Your task to perform on an android device: Go to Maps Image 0: 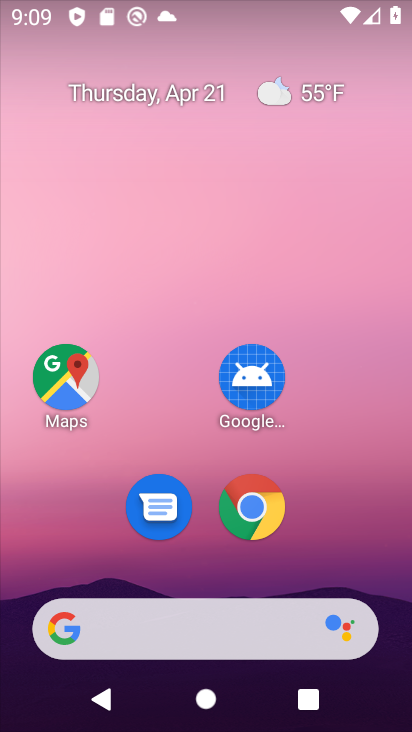
Step 0: click (60, 370)
Your task to perform on an android device: Go to Maps Image 1: 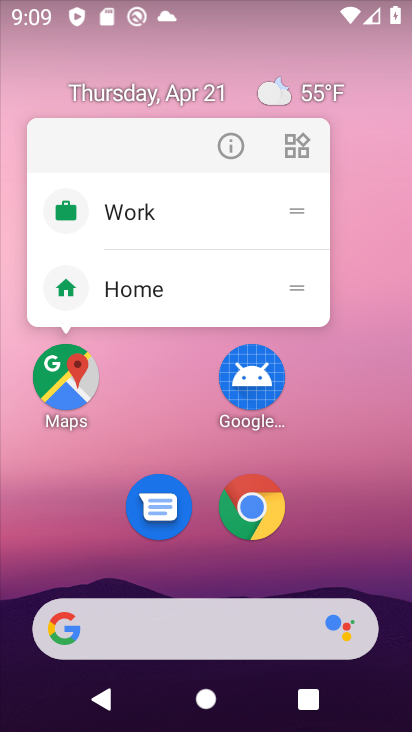
Step 1: click (67, 379)
Your task to perform on an android device: Go to Maps Image 2: 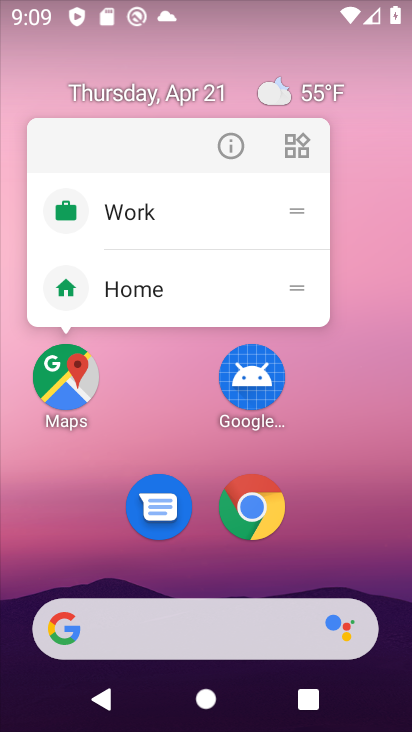
Step 2: click (67, 380)
Your task to perform on an android device: Go to Maps Image 3: 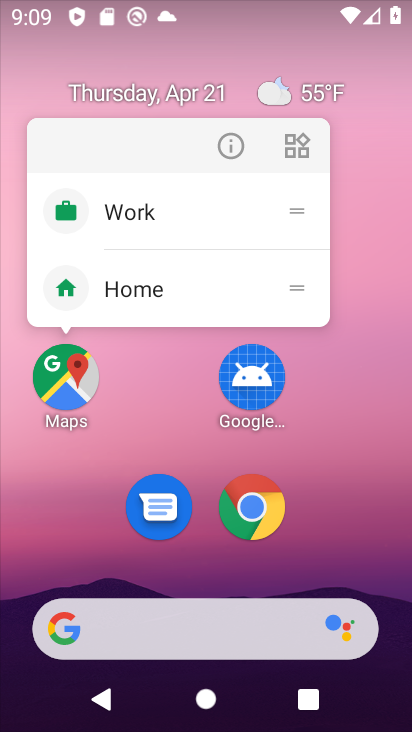
Step 3: click (67, 380)
Your task to perform on an android device: Go to Maps Image 4: 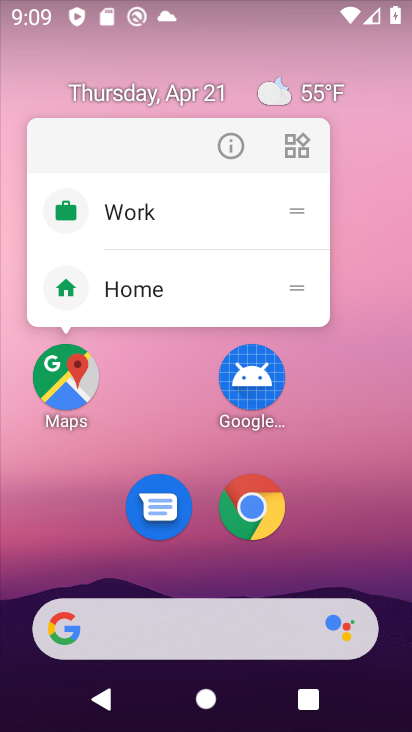
Step 4: click (312, 457)
Your task to perform on an android device: Go to Maps Image 5: 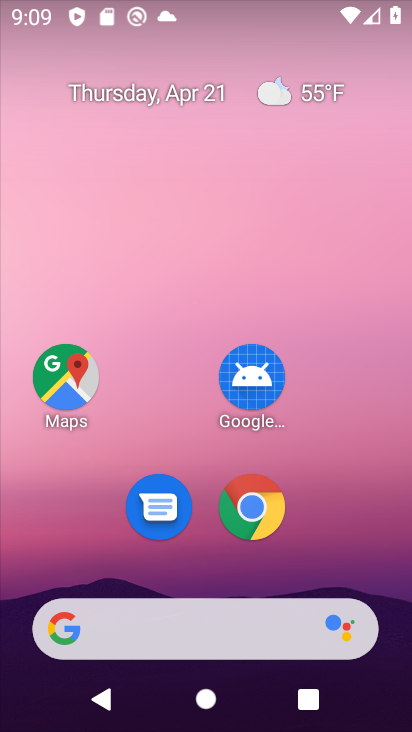
Step 5: drag from (218, 587) to (267, 277)
Your task to perform on an android device: Go to Maps Image 6: 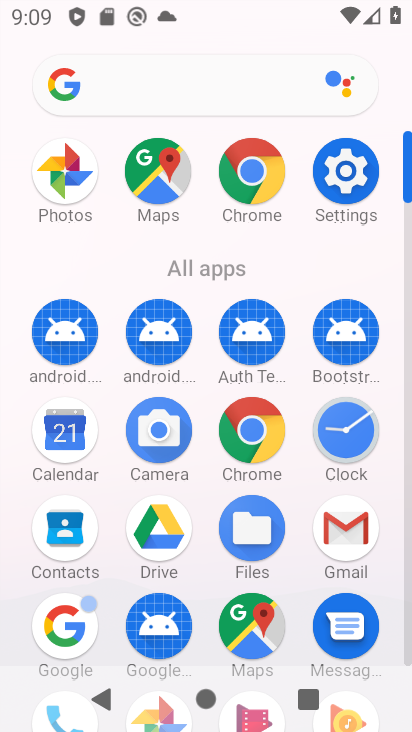
Step 6: click (263, 621)
Your task to perform on an android device: Go to Maps Image 7: 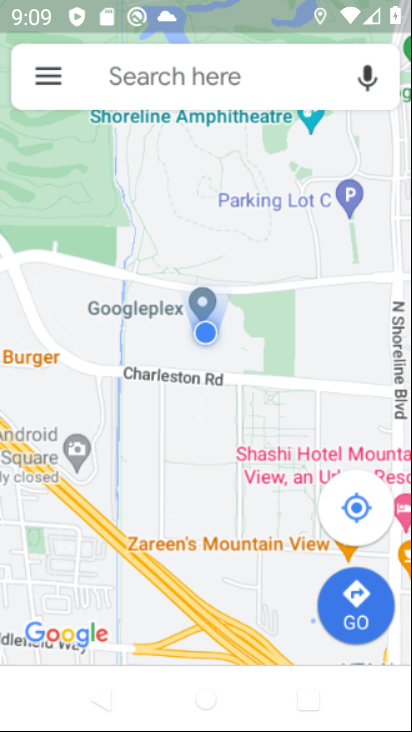
Step 7: task complete